Your task to perform on an android device: Open maps Image 0: 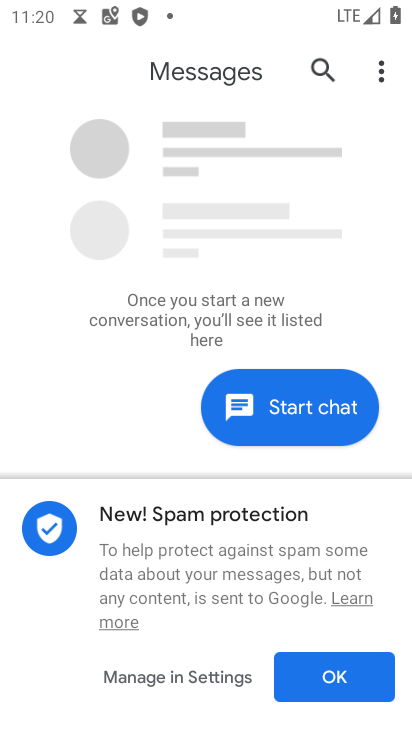
Step 0: press home button
Your task to perform on an android device: Open maps Image 1: 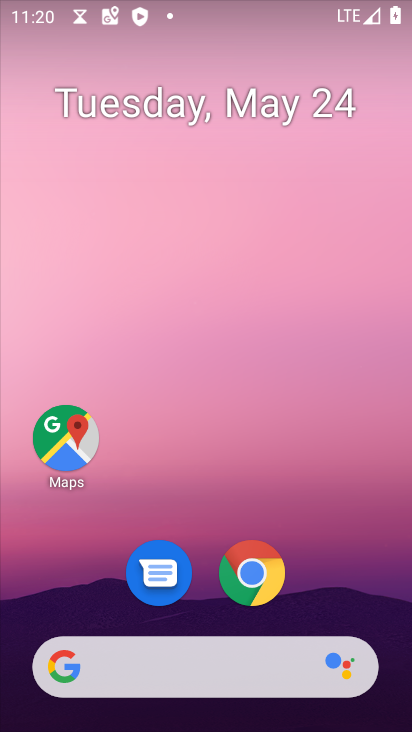
Step 1: click (65, 439)
Your task to perform on an android device: Open maps Image 2: 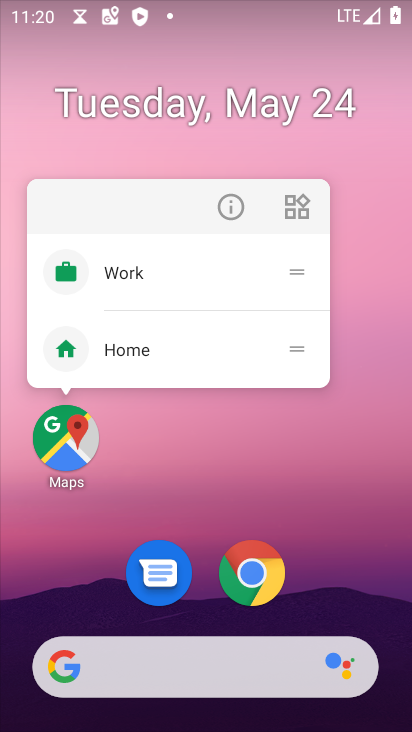
Step 2: click (67, 443)
Your task to perform on an android device: Open maps Image 3: 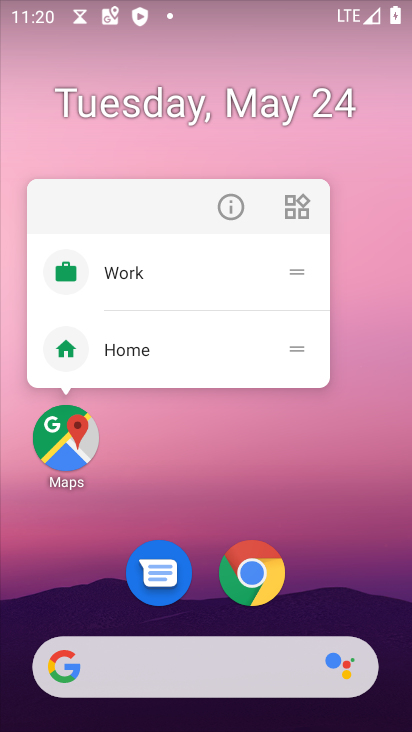
Step 3: click (69, 444)
Your task to perform on an android device: Open maps Image 4: 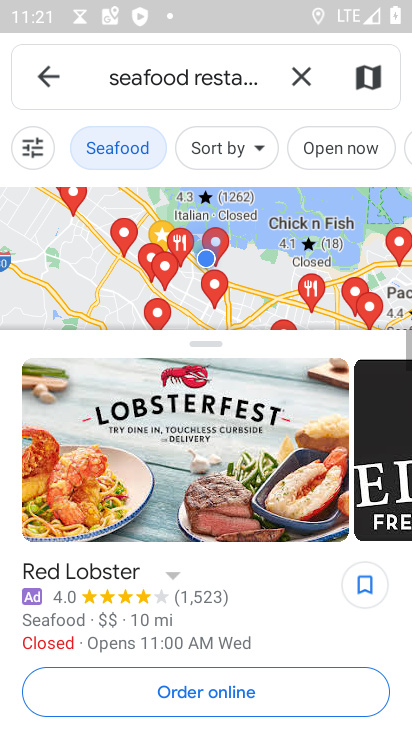
Step 4: task complete